Your task to perform on an android device: add a label to a message in the gmail app Image 0: 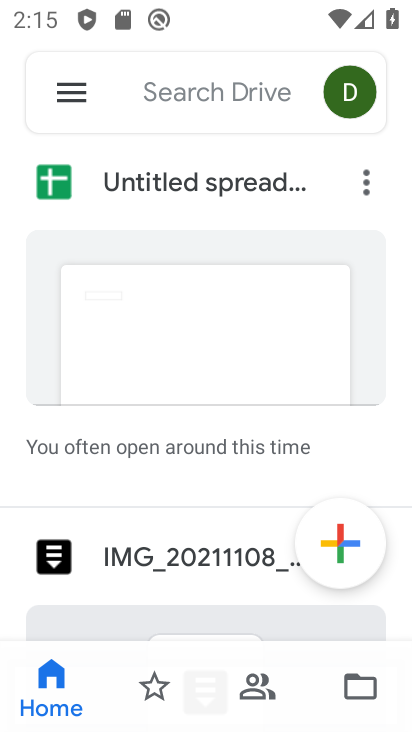
Step 0: press home button
Your task to perform on an android device: add a label to a message in the gmail app Image 1: 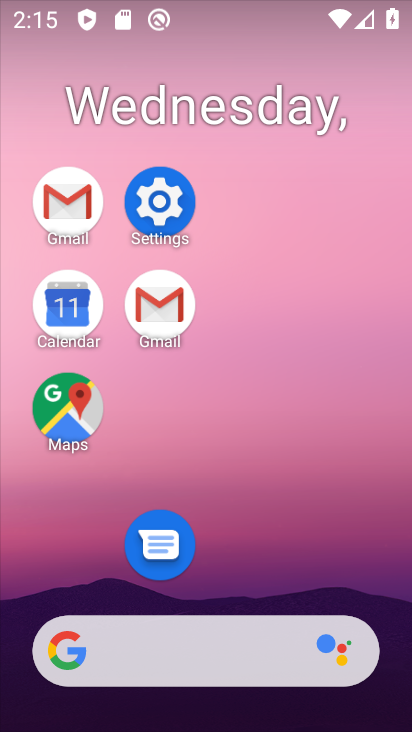
Step 1: click (163, 307)
Your task to perform on an android device: add a label to a message in the gmail app Image 2: 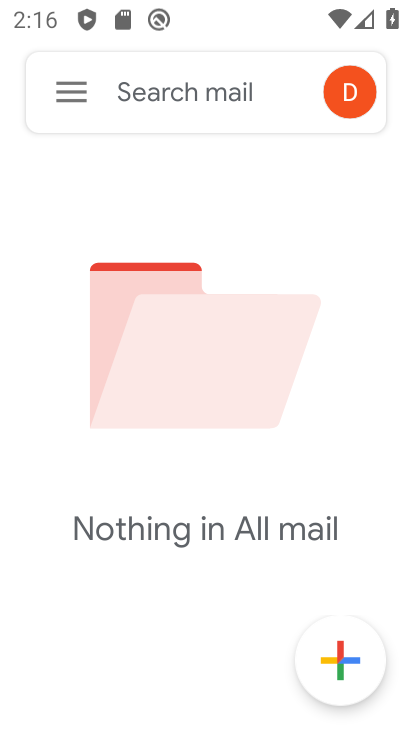
Step 2: click (75, 127)
Your task to perform on an android device: add a label to a message in the gmail app Image 3: 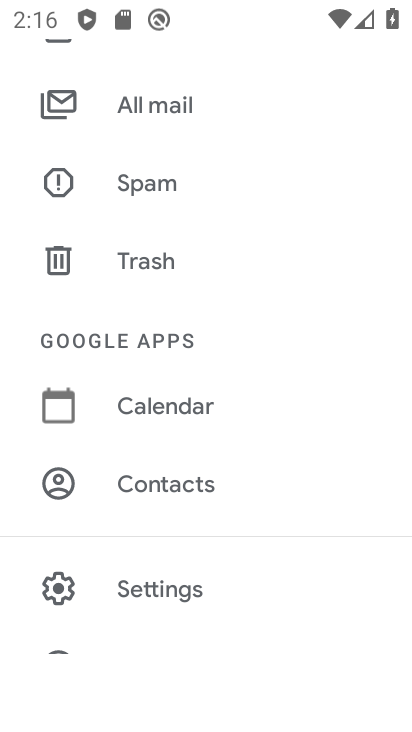
Step 3: click (132, 121)
Your task to perform on an android device: add a label to a message in the gmail app Image 4: 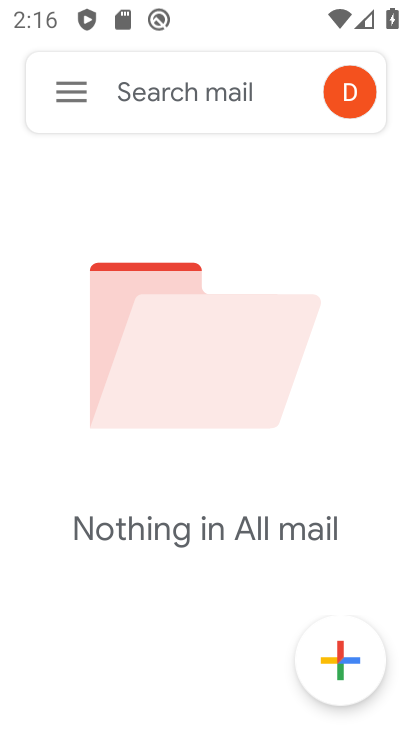
Step 4: task complete